Your task to perform on an android device: Go to eBay Image 0: 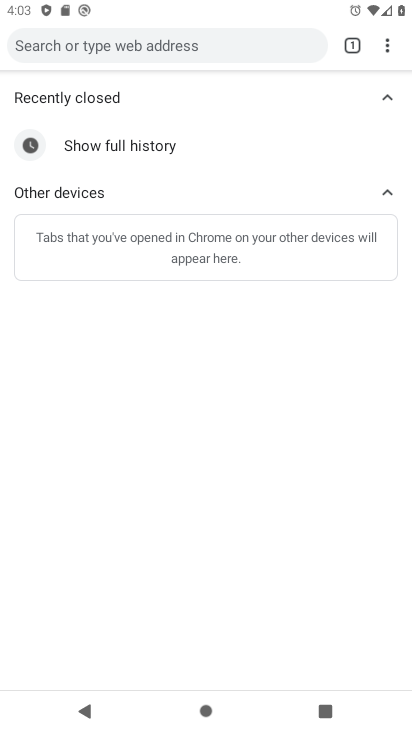
Step 0: press home button
Your task to perform on an android device: Go to eBay Image 1: 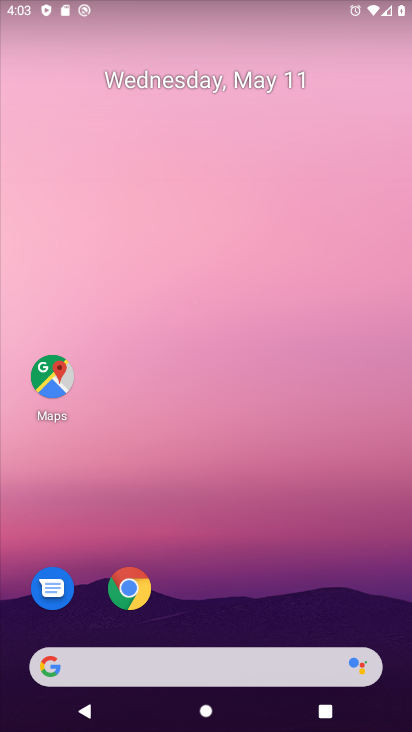
Step 1: drag from (307, 567) to (216, 150)
Your task to perform on an android device: Go to eBay Image 2: 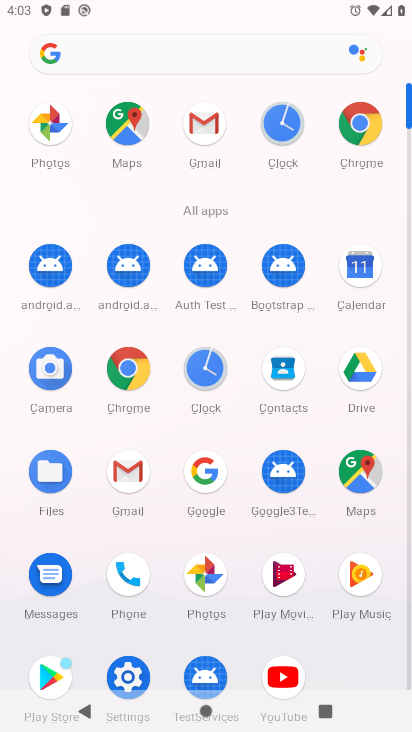
Step 2: click (123, 360)
Your task to perform on an android device: Go to eBay Image 3: 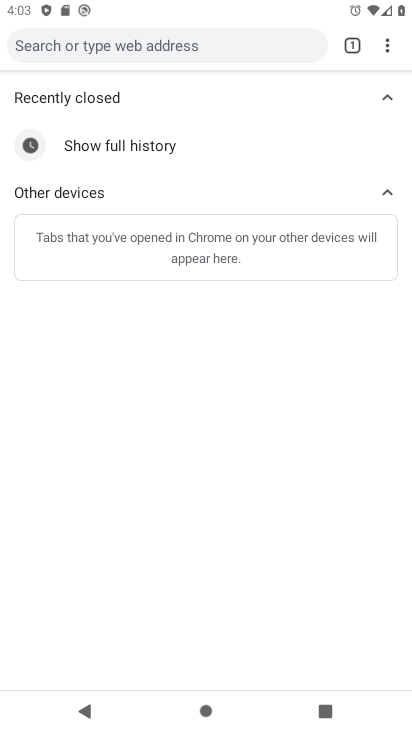
Step 3: click (193, 31)
Your task to perform on an android device: Go to eBay Image 4: 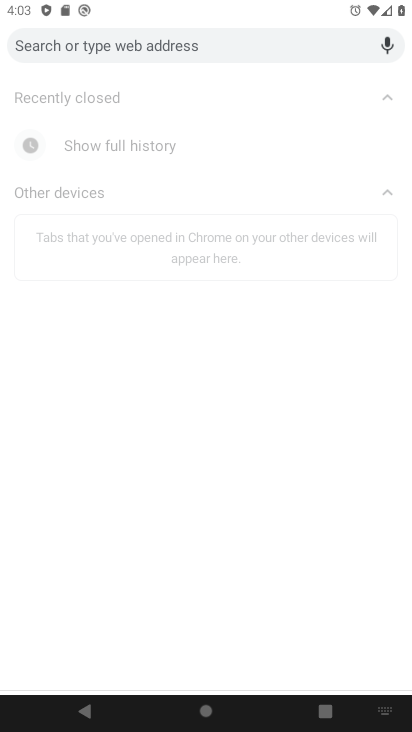
Step 4: click (192, 46)
Your task to perform on an android device: Go to eBay Image 5: 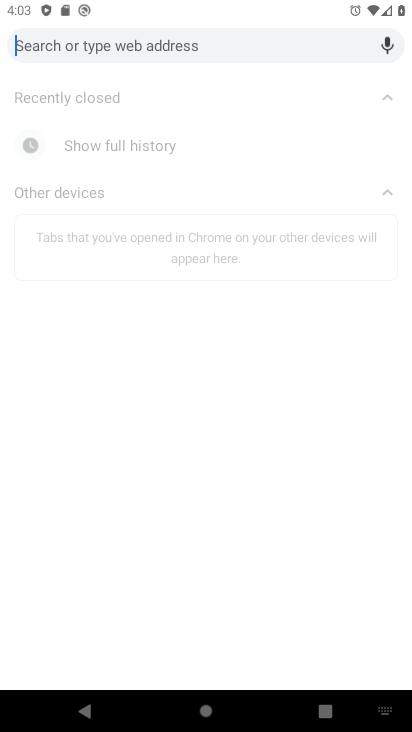
Step 5: type "ebay"
Your task to perform on an android device: Go to eBay Image 6: 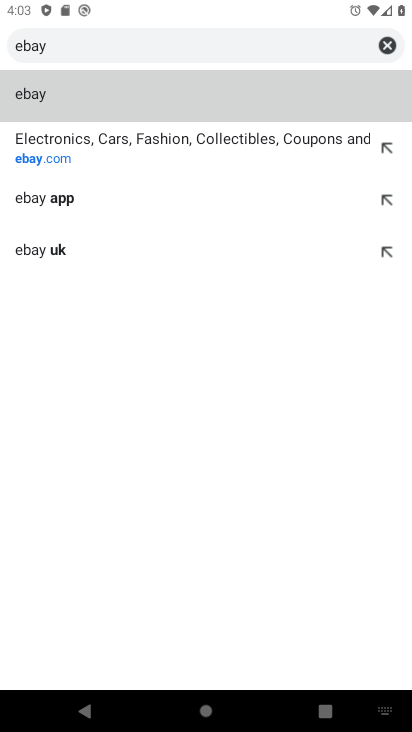
Step 6: click (56, 198)
Your task to perform on an android device: Go to eBay Image 7: 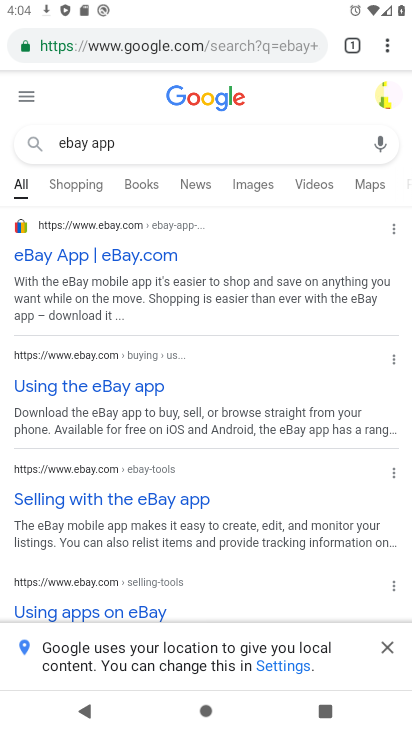
Step 7: click (86, 267)
Your task to perform on an android device: Go to eBay Image 8: 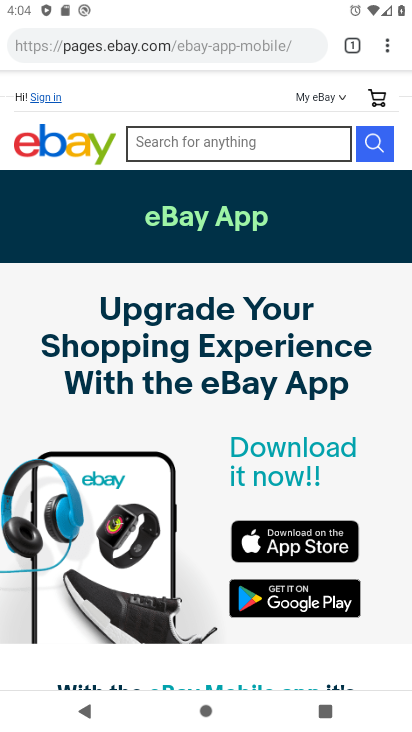
Step 8: task complete